Your task to perform on an android device: What's on my calendar tomorrow? Image 0: 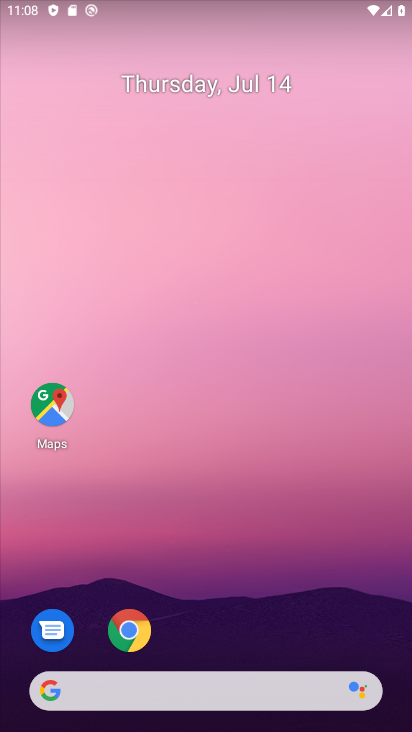
Step 0: drag from (216, 661) to (145, 6)
Your task to perform on an android device: What's on my calendar tomorrow? Image 1: 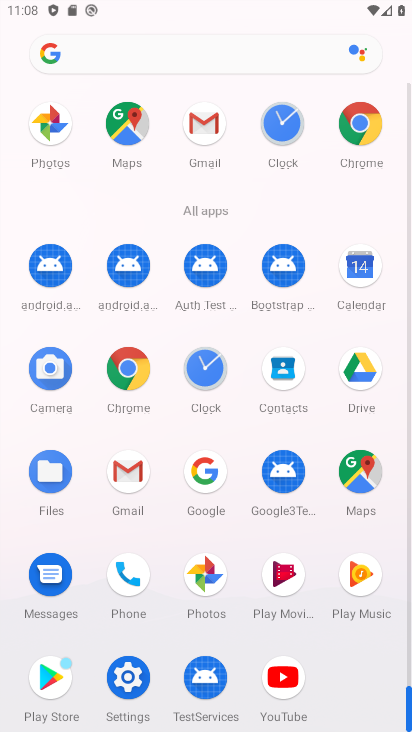
Step 1: click (371, 265)
Your task to perform on an android device: What's on my calendar tomorrow? Image 2: 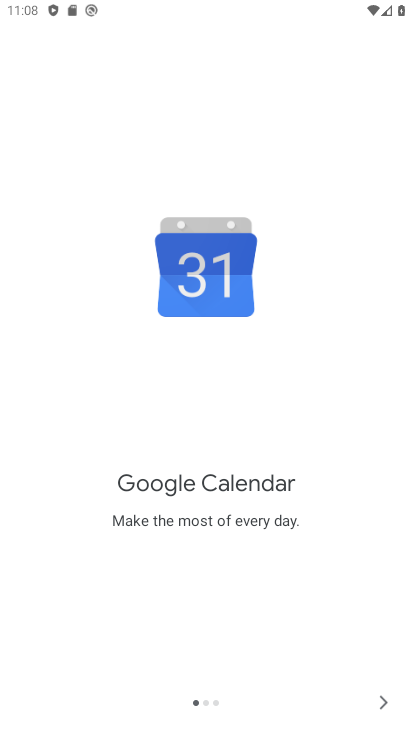
Step 2: click (374, 692)
Your task to perform on an android device: What's on my calendar tomorrow? Image 3: 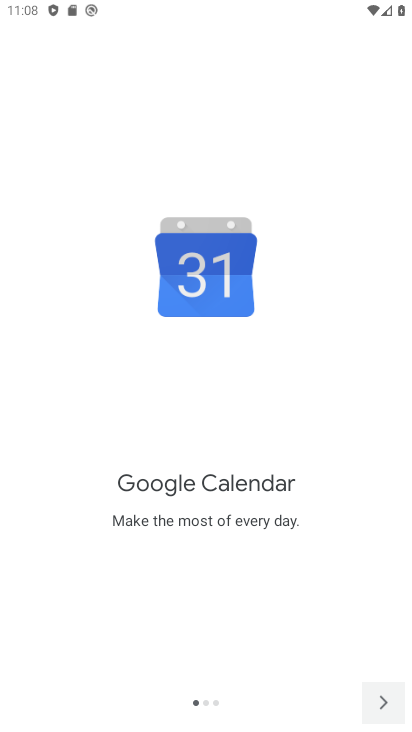
Step 3: click (374, 692)
Your task to perform on an android device: What's on my calendar tomorrow? Image 4: 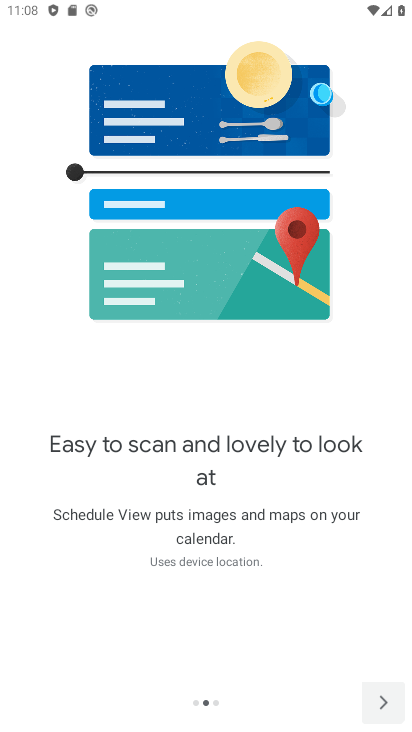
Step 4: click (376, 695)
Your task to perform on an android device: What's on my calendar tomorrow? Image 5: 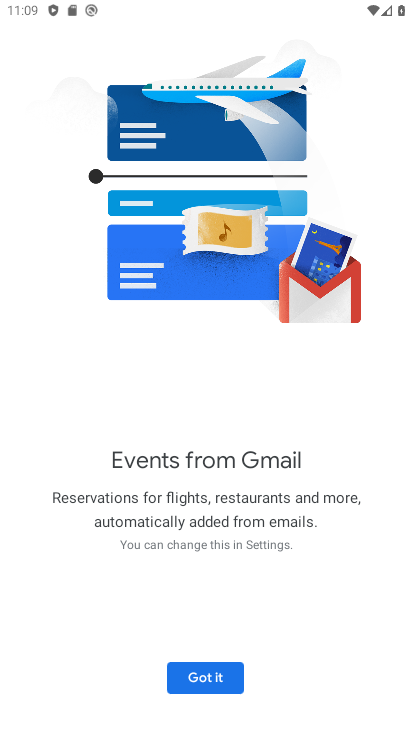
Step 5: click (199, 664)
Your task to perform on an android device: What's on my calendar tomorrow? Image 6: 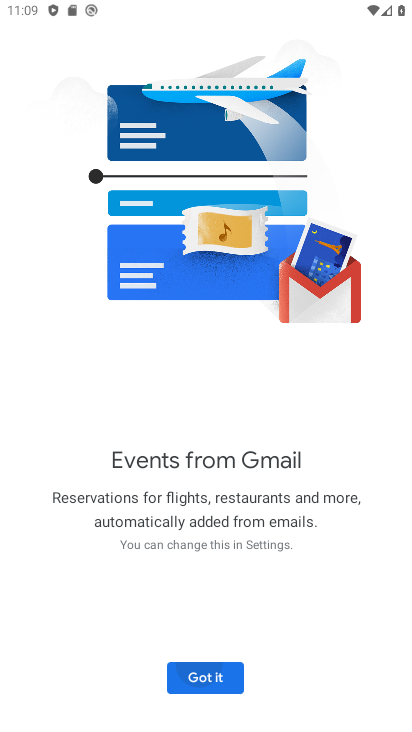
Step 6: click (199, 664)
Your task to perform on an android device: What's on my calendar tomorrow? Image 7: 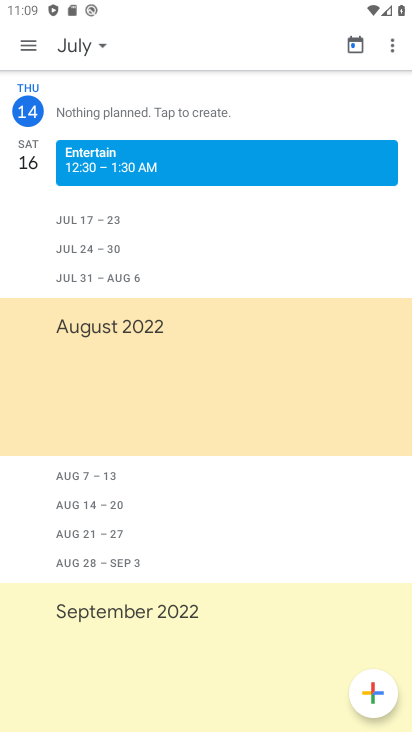
Step 7: click (99, 48)
Your task to perform on an android device: What's on my calendar tomorrow? Image 8: 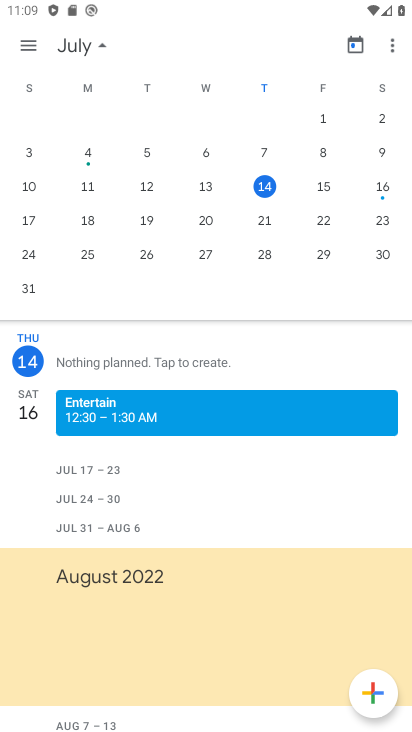
Step 8: click (380, 186)
Your task to perform on an android device: What's on my calendar tomorrow? Image 9: 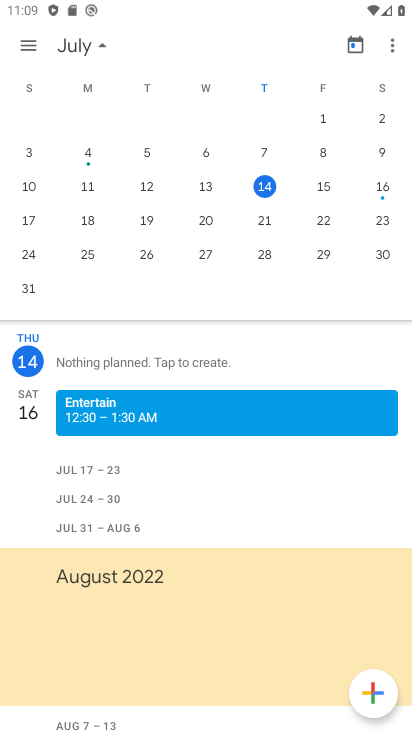
Step 9: click (380, 186)
Your task to perform on an android device: What's on my calendar tomorrow? Image 10: 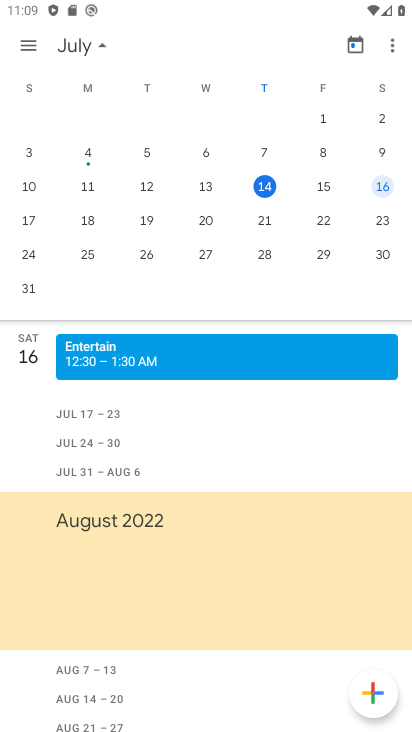
Step 10: task complete